Your task to perform on an android device: Go to accessibility settings Image 0: 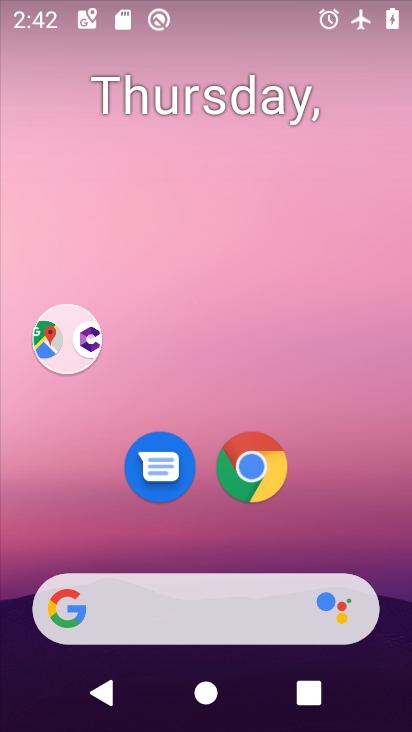
Step 0: drag from (249, 559) to (157, 2)
Your task to perform on an android device: Go to accessibility settings Image 1: 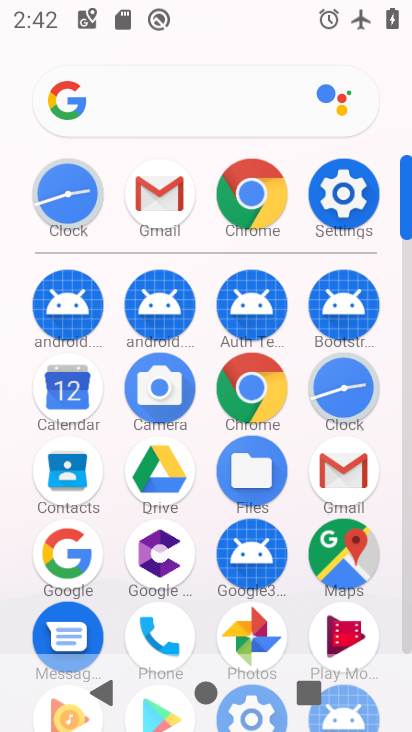
Step 1: click (336, 185)
Your task to perform on an android device: Go to accessibility settings Image 2: 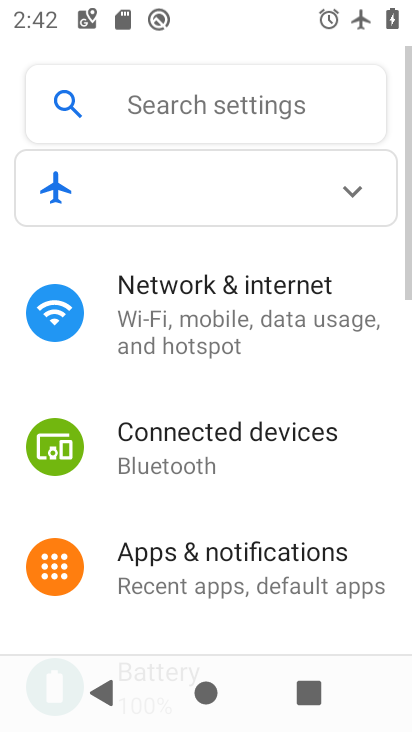
Step 2: drag from (230, 556) to (141, 23)
Your task to perform on an android device: Go to accessibility settings Image 3: 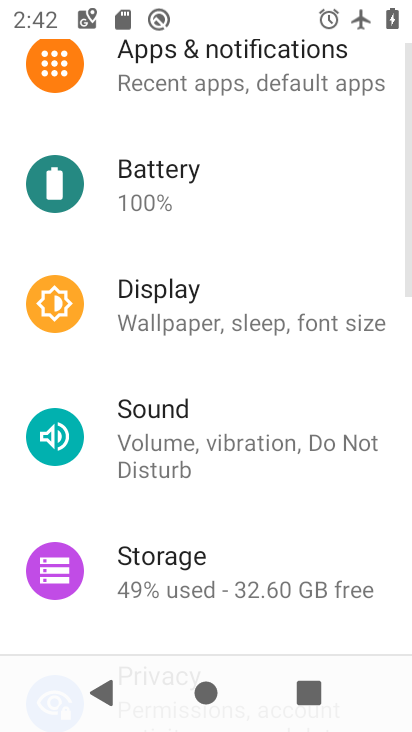
Step 3: drag from (218, 547) to (166, 89)
Your task to perform on an android device: Go to accessibility settings Image 4: 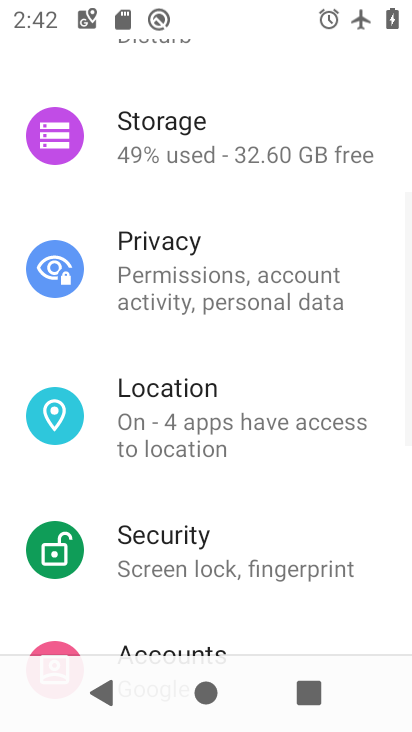
Step 4: drag from (237, 560) to (238, 56)
Your task to perform on an android device: Go to accessibility settings Image 5: 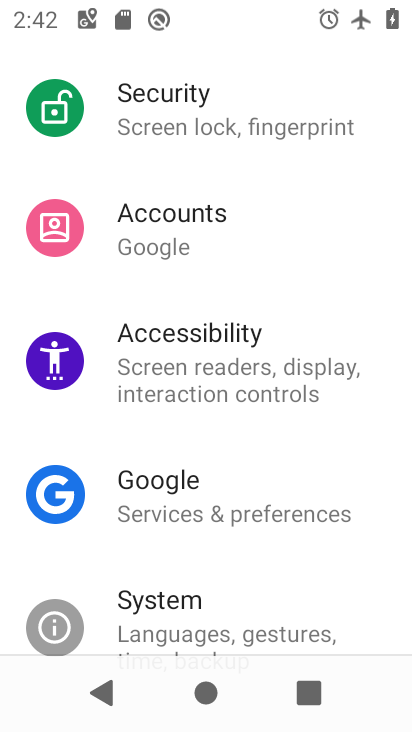
Step 5: drag from (268, 577) to (268, 489)
Your task to perform on an android device: Go to accessibility settings Image 6: 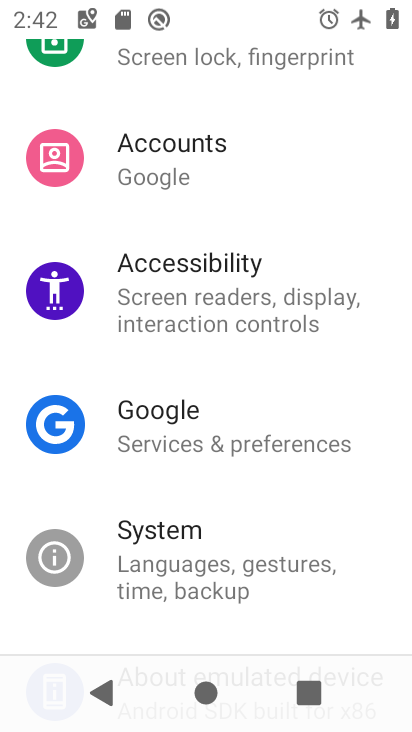
Step 6: click (191, 317)
Your task to perform on an android device: Go to accessibility settings Image 7: 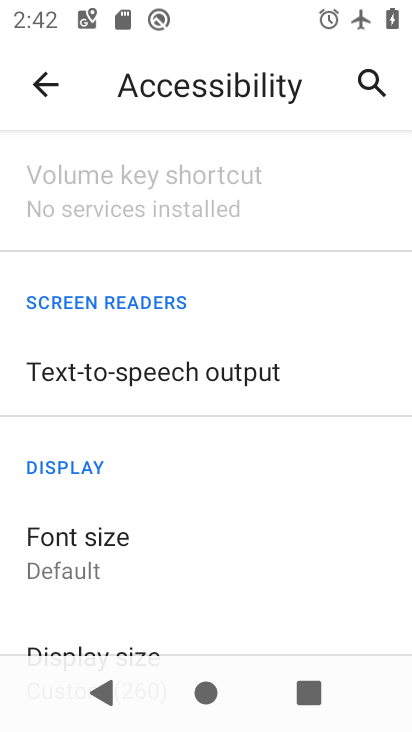
Step 7: task complete